Your task to perform on an android device: Go to calendar. Show me events next week Image 0: 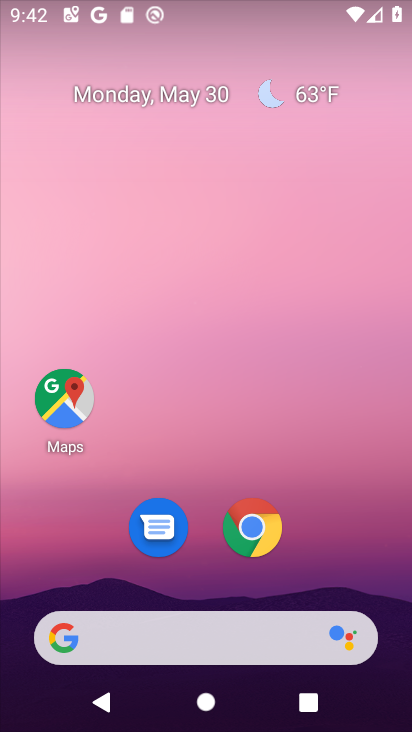
Step 0: drag from (301, 575) to (359, 243)
Your task to perform on an android device: Go to calendar. Show me events next week Image 1: 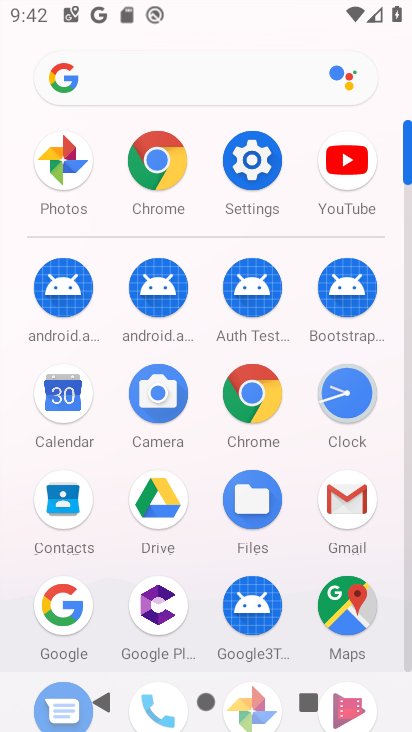
Step 1: click (67, 388)
Your task to perform on an android device: Go to calendar. Show me events next week Image 2: 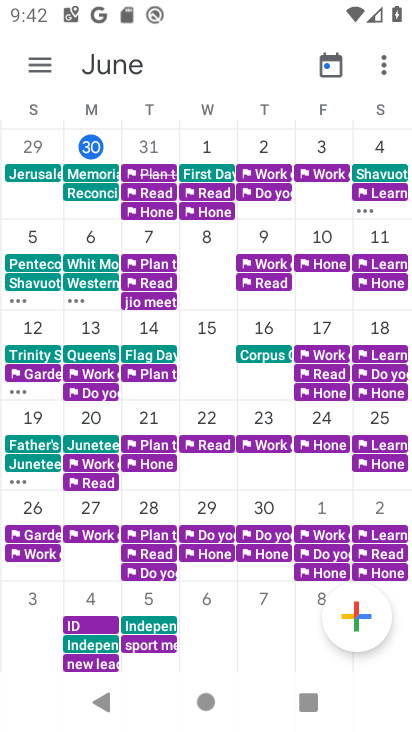
Step 2: click (40, 53)
Your task to perform on an android device: Go to calendar. Show me events next week Image 3: 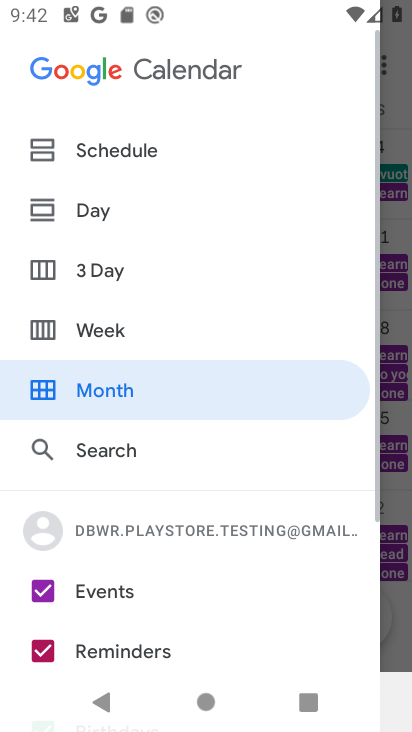
Step 3: click (118, 336)
Your task to perform on an android device: Go to calendar. Show me events next week Image 4: 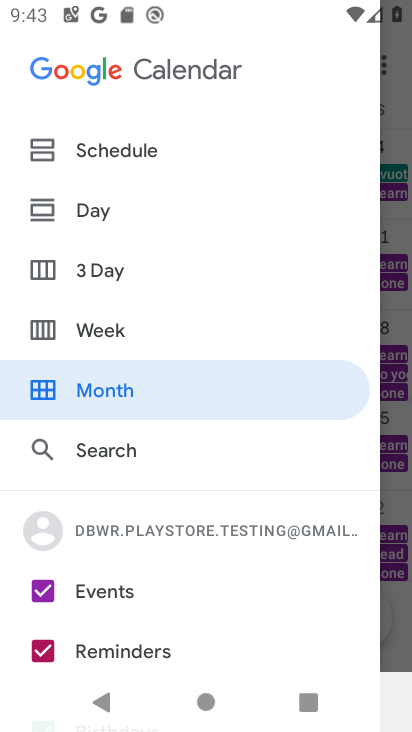
Step 4: click (114, 330)
Your task to perform on an android device: Go to calendar. Show me events next week Image 5: 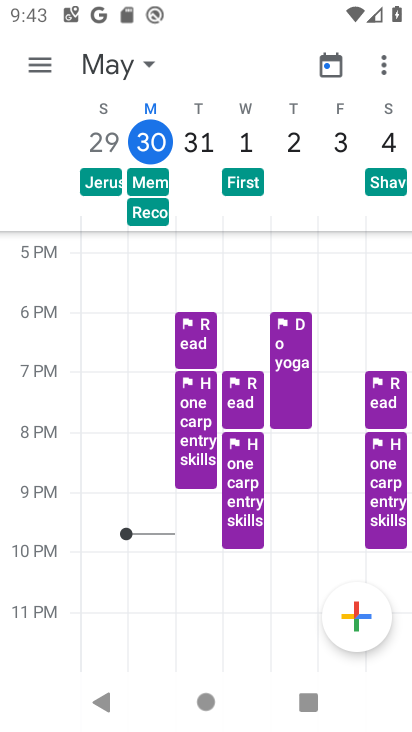
Step 5: task complete